Your task to perform on an android device: Show the shopping cart on costco.com. Image 0: 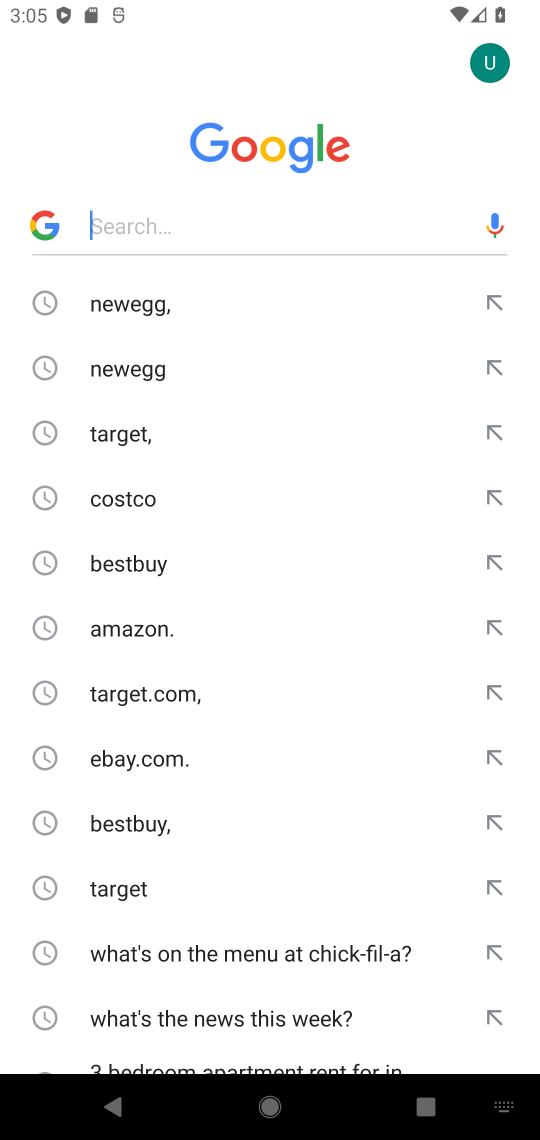
Step 0: press home button
Your task to perform on an android device: Show the shopping cart on costco.com. Image 1: 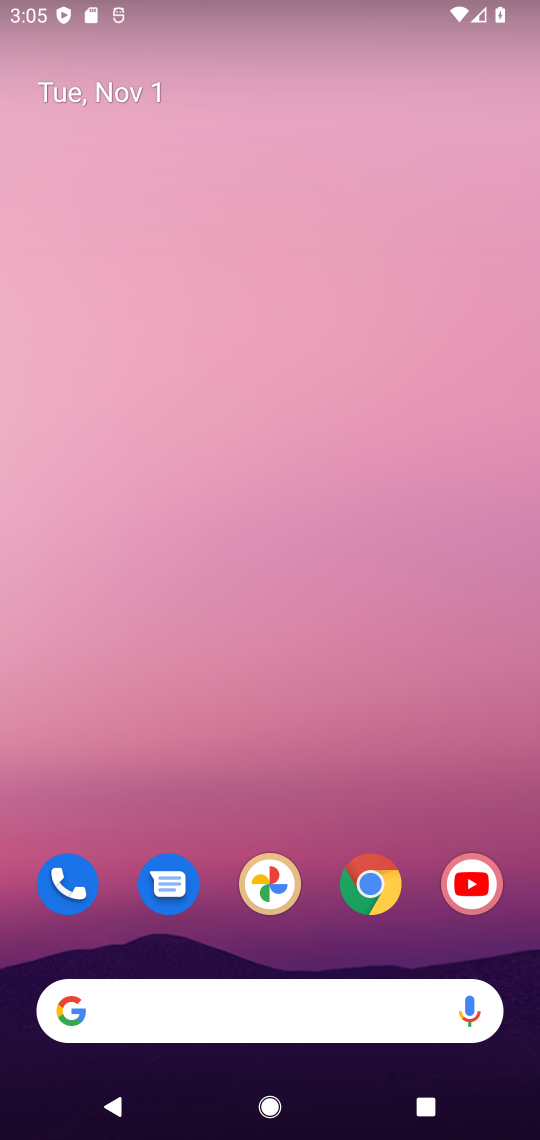
Step 1: click (375, 878)
Your task to perform on an android device: Show the shopping cart on costco.com. Image 2: 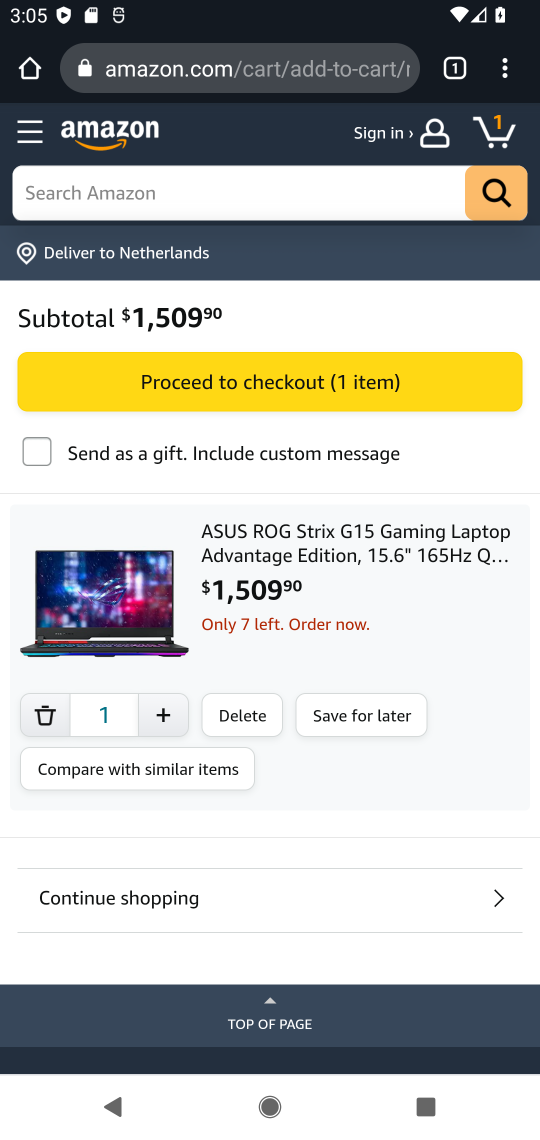
Step 2: click (201, 67)
Your task to perform on an android device: Show the shopping cart on costco.com. Image 3: 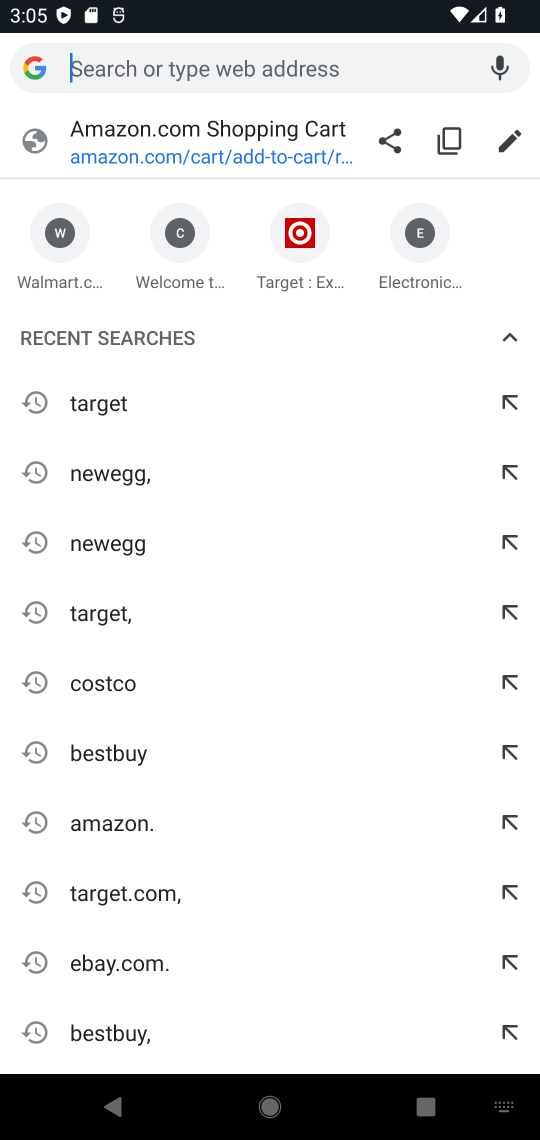
Step 3: type "costco.com"
Your task to perform on an android device: Show the shopping cart on costco.com. Image 4: 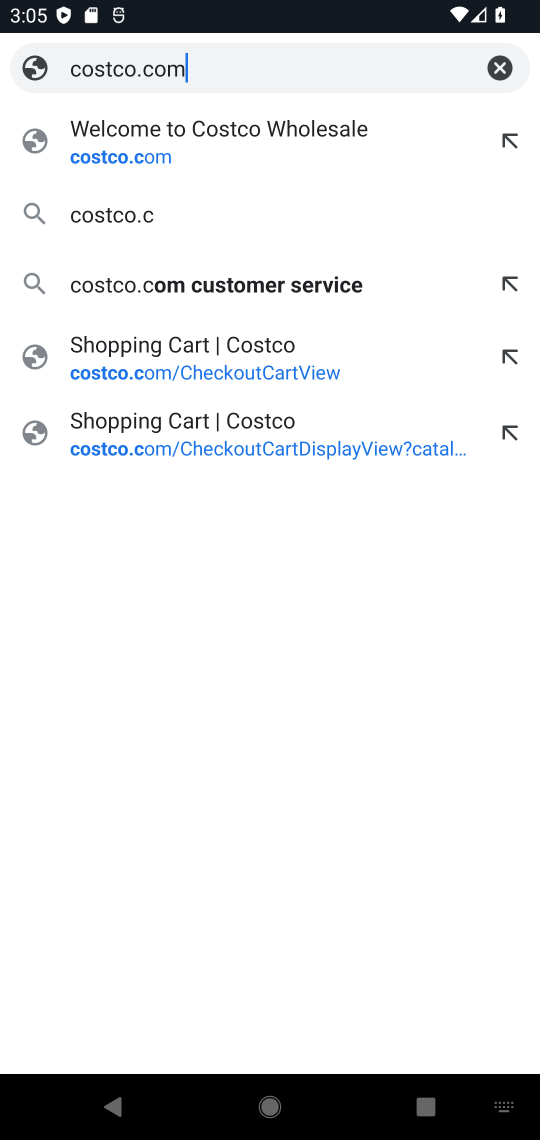
Step 4: press enter
Your task to perform on an android device: Show the shopping cart on costco.com. Image 5: 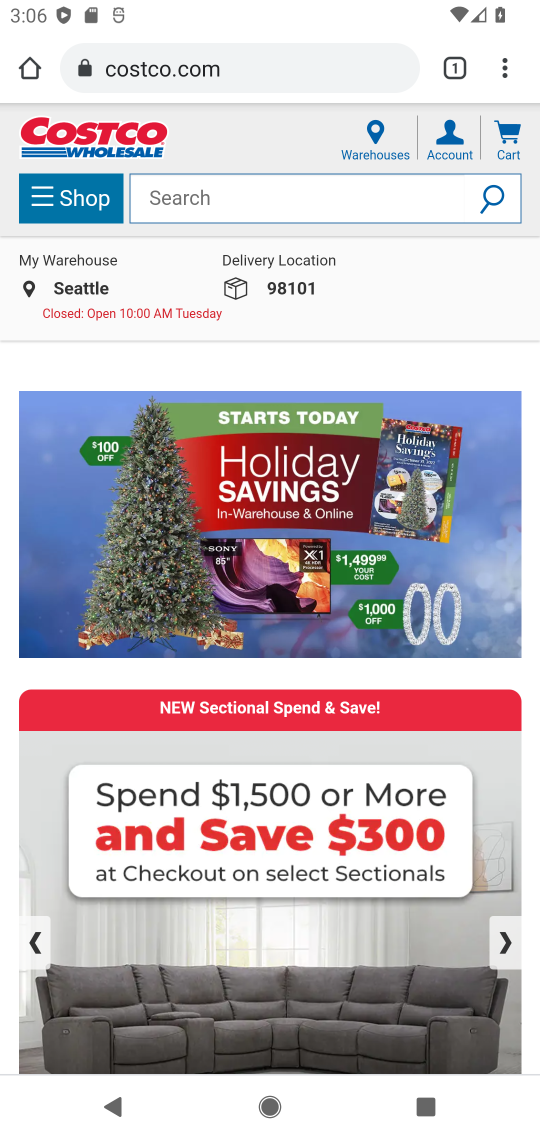
Step 5: click (513, 145)
Your task to perform on an android device: Show the shopping cart on costco.com. Image 6: 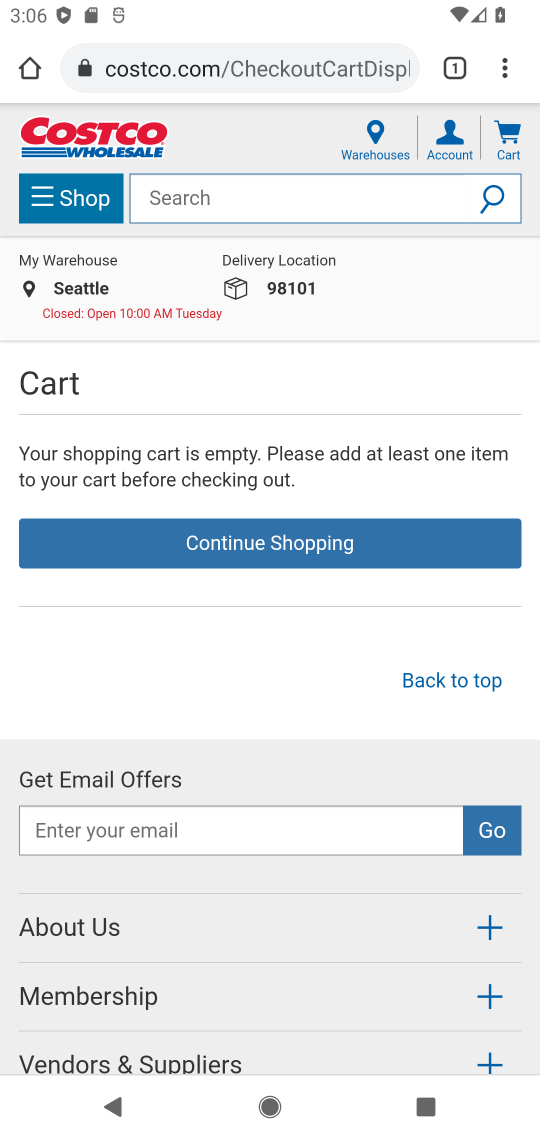
Step 6: task complete